Your task to perform on an android device: What's the weather going to be tomorrow? Image 0: 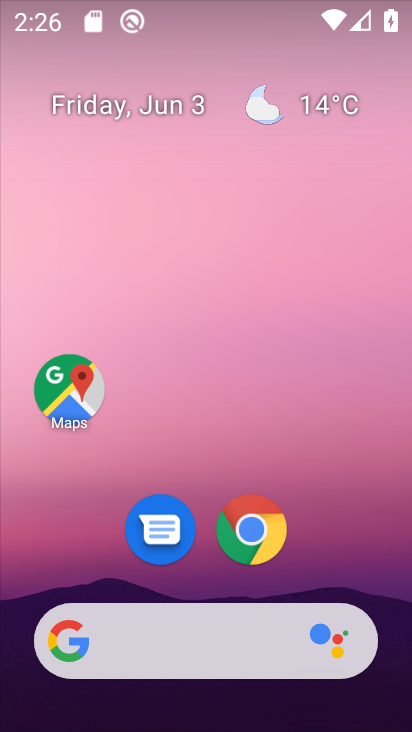
Step 0: click (197, 94)
Your task to perform on an android device: What's the weather going to be tomorrow? Image 1: 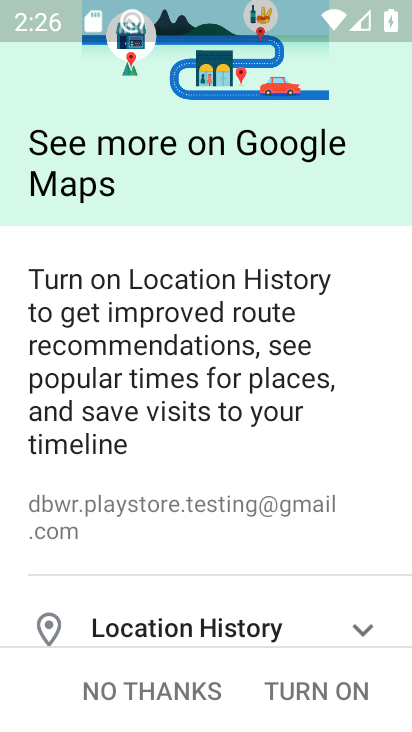
Step 1: press back button
Your task to perform on an android device: What's the weather going to be tomorrow? Image 2: 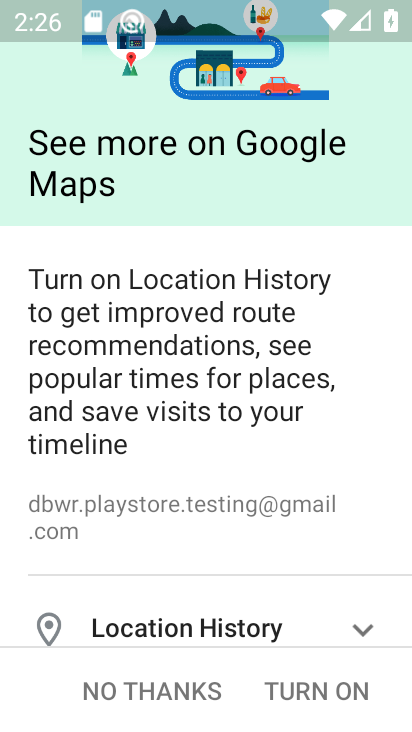
Step 2: press back button
Your task to perform on an android device: What's the weather going to be tomorrow? Image 3: 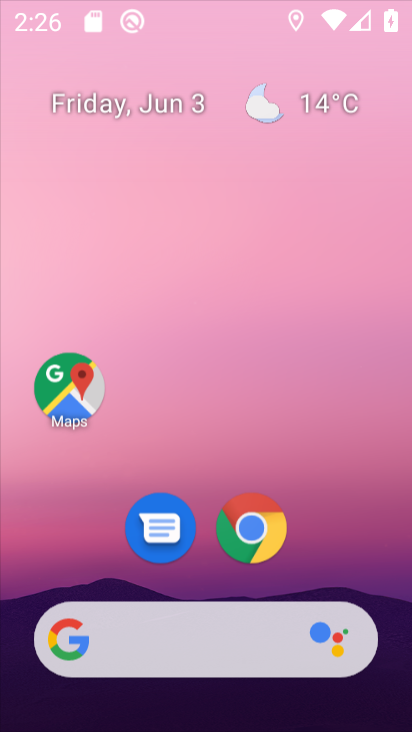
Step 3: press home button
Your task to perform on an android device: What's the weather going to be tomorrow? Image 4: 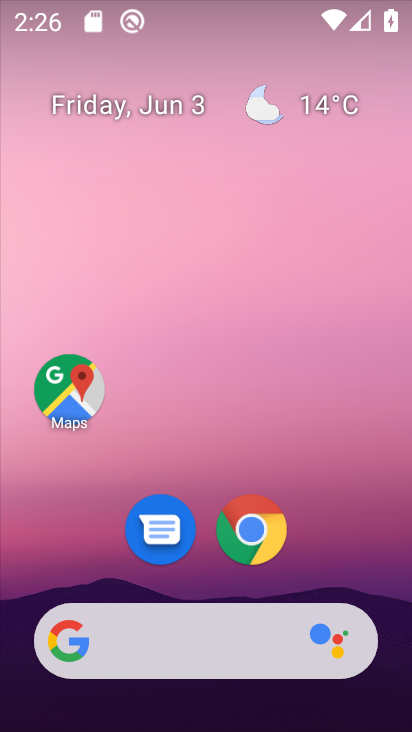
Step 4: drag from (4, 297) to (397, 649)
Your task to perform on an android device: What's the weather going to be tomorrow? Image 5: 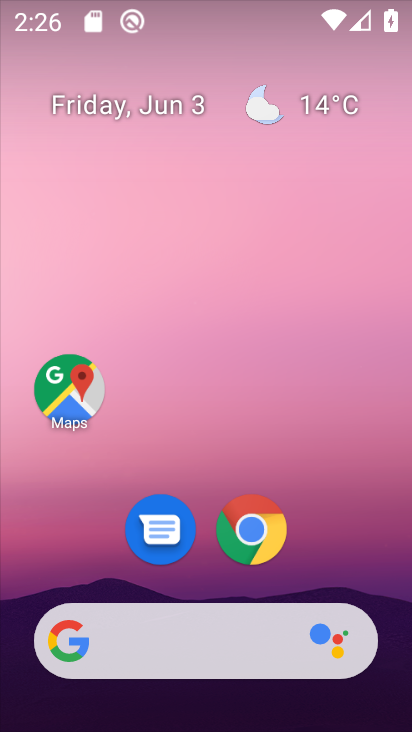
Step 5: drag from (157, 322) to (384, 555)
Your task to perform on an android device: What's the weather going to be tomorrow? Image 6: 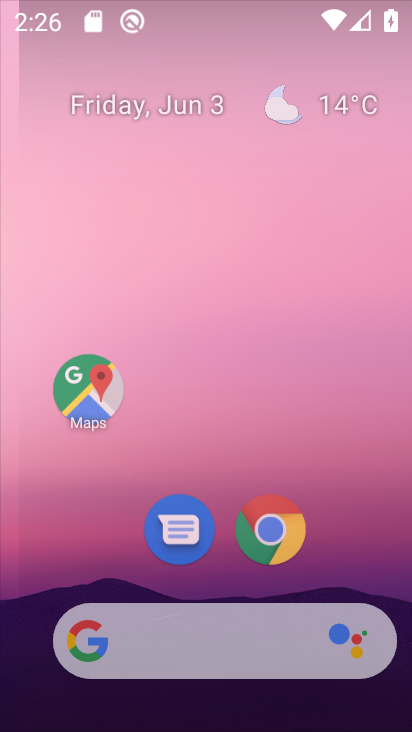
Step 6: drag from (43, 355) to (369, 503)
Your task to perform on an android device: What's the weather going to be tomorrow? Image 7: 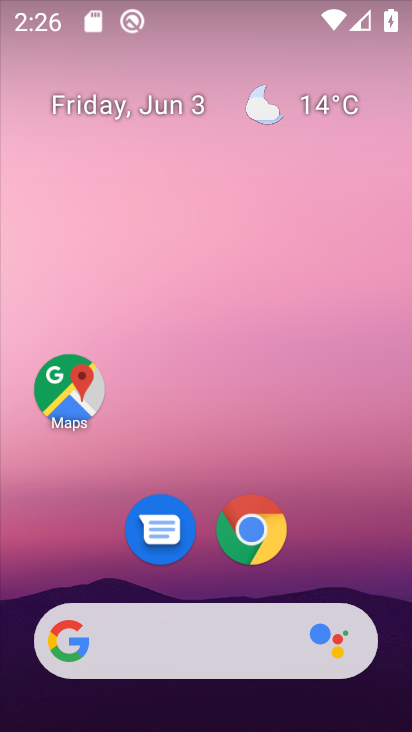
Step 7: drag from (207, 366) to (288, 377)
Your task to perform on an android device: What's the weather going to be tomorrow? Image 8: 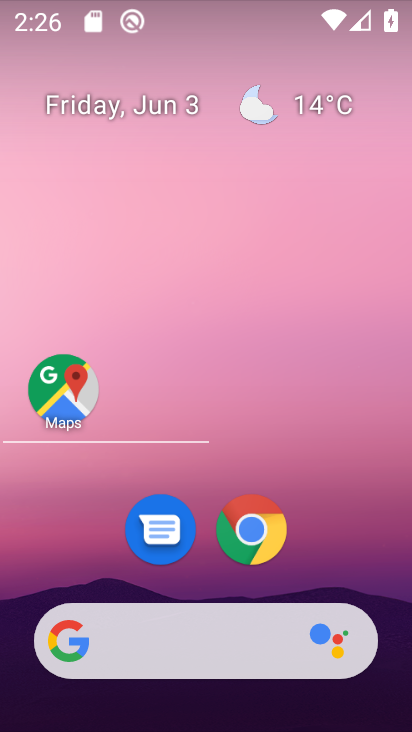
Step 8: drag from (39, 273) to (361, 512)
Your task to perform on an android device: What's the weather going to be tomorrow? Image 9: 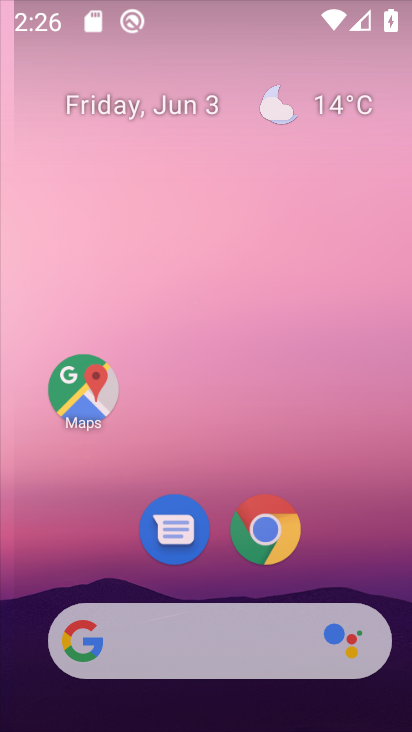
Step 9: drag from (97, 313) to (390, 426)
Your task to perform on an android device: What's the weather going to be tomorrow? Image 10: 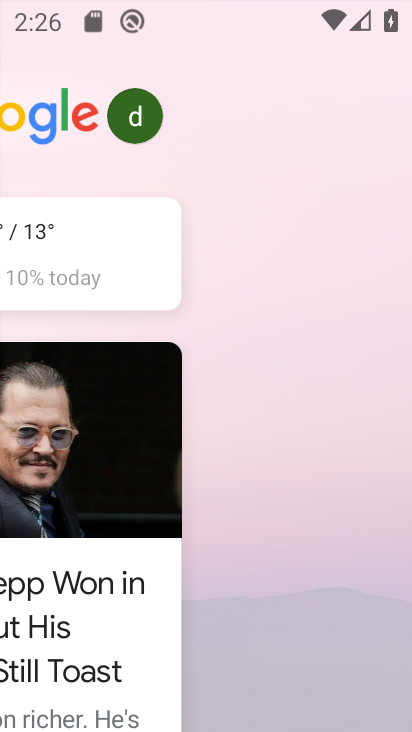
Step 10: drag from (113, 253) to (393, 485)
Your task to perform on an android device: What's the weather going to be tomorrow? Image 11: 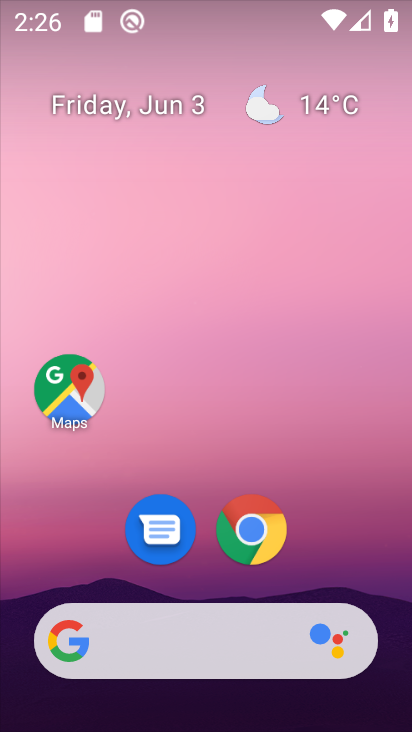
Step 11: drag from (31, 312) to (354, 482)
Your task to perform on an android device: What's the weather going to be tomorrow? Image 12: 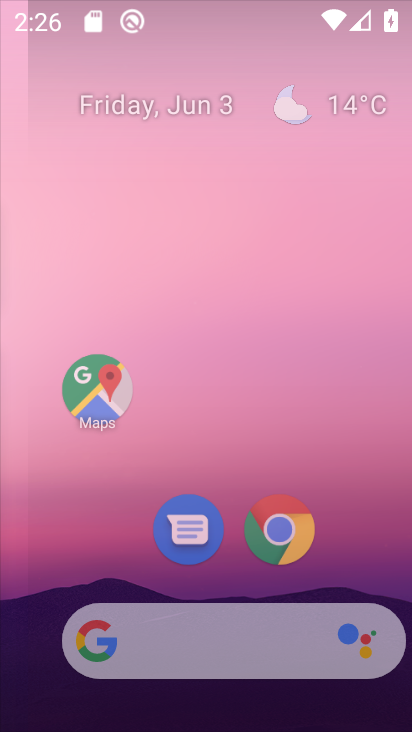
Step 12: drag from (220, 412) to (404, 485)
Your task to perform on an android device: What's the weather going to be tomorrow? Image 13: 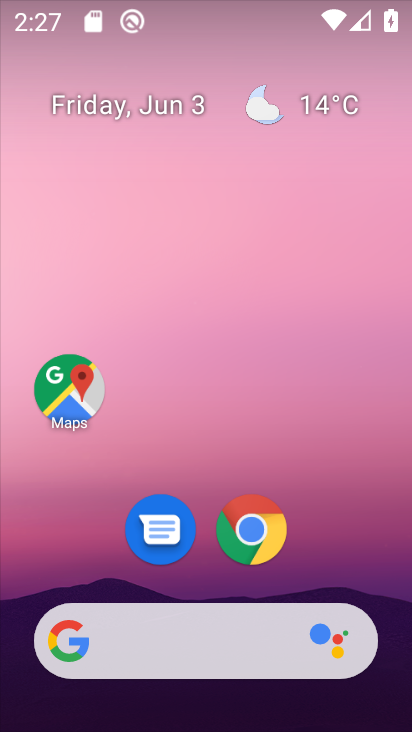
Step 13: drag from (56, 312) to (395, 339)
Your task to perform on an android device: What's the weather going to be tomorrow? Image 14: 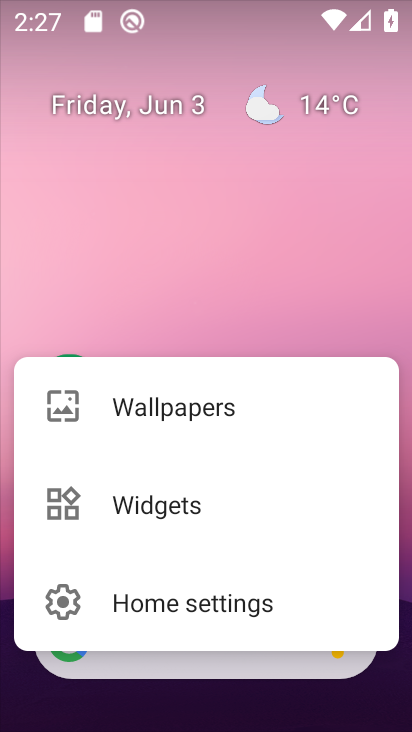
Step 14: drag from (16, 205) to (393, 453)
Your task to perform on an android device: What's the weather going to be tomorrow? Image 15: 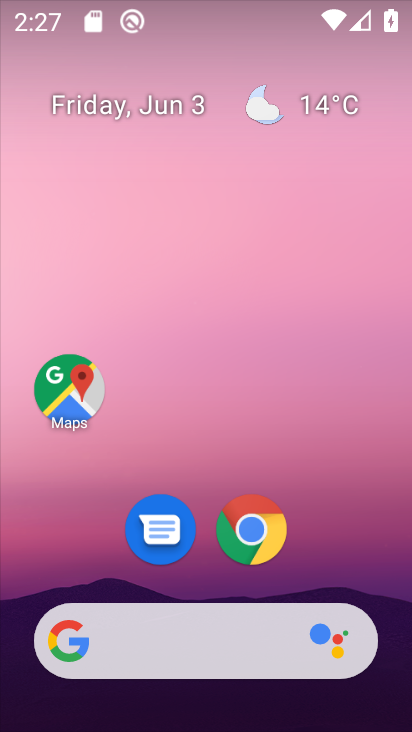
Step 15: drag from (92, 342) to (366, 676)
Your task to perform on an android device: What's the weather going to be tomorrow? Image 16: 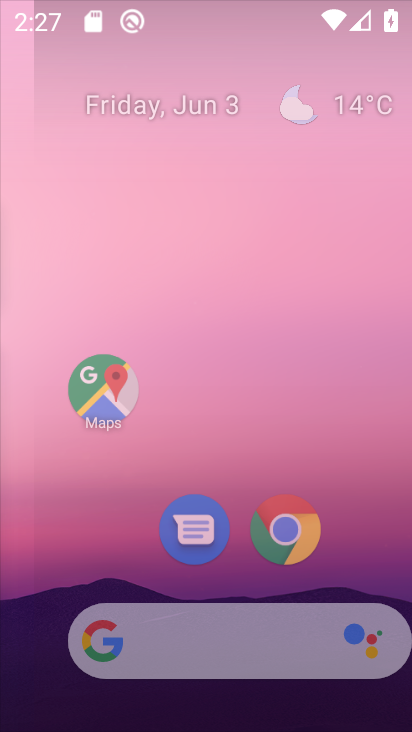
Step 16: drag from (39, 262) to (406, 486)
Your task to perform on an android device: What's the weather going to be tomorrow? Image 17: 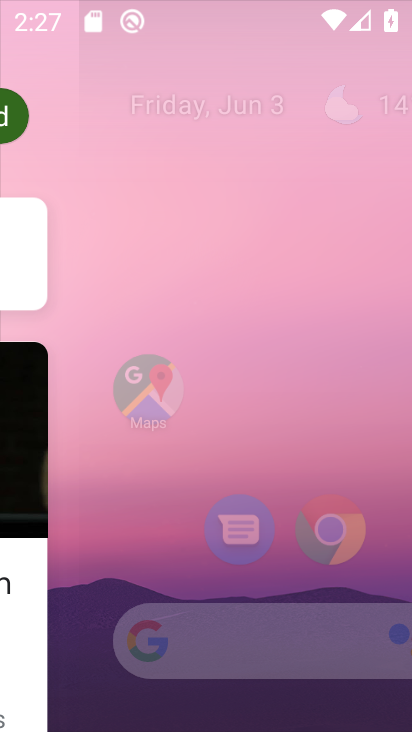
Step 17: drag from (27, 262) to (315, 452)
Your task to perform on an android device: What's the weather going to be tomorrow? Image 18: 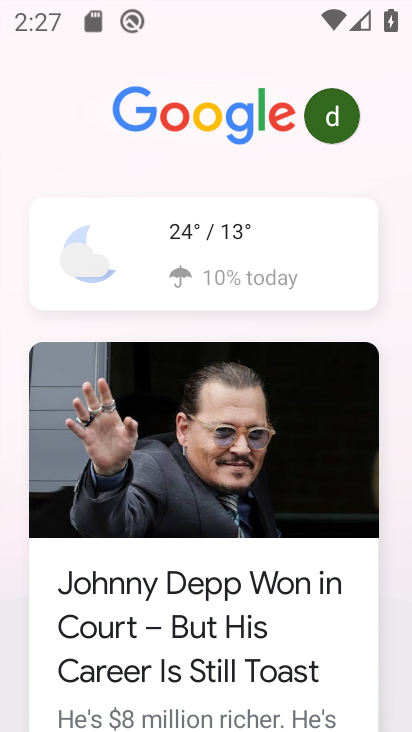
Step 18: drag from (16, 343) to (387, 537)
Your task to perform on an android device: What's the weather going to be tomorrow? Image 19: 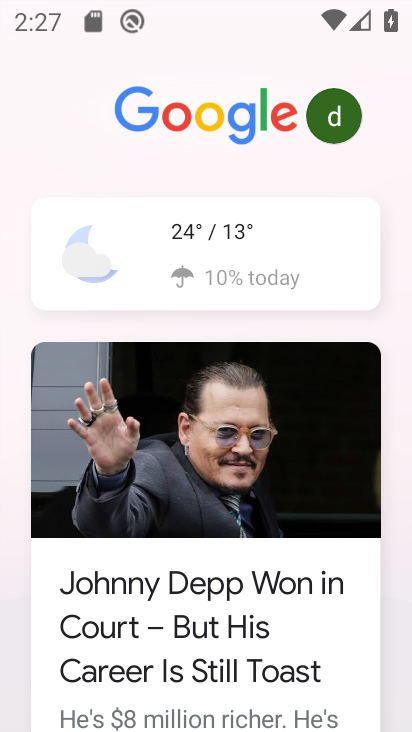
Step 19: click (155, 244)
Your task to perform on an android device: What's the weather going to be tomorrow? Image 20: 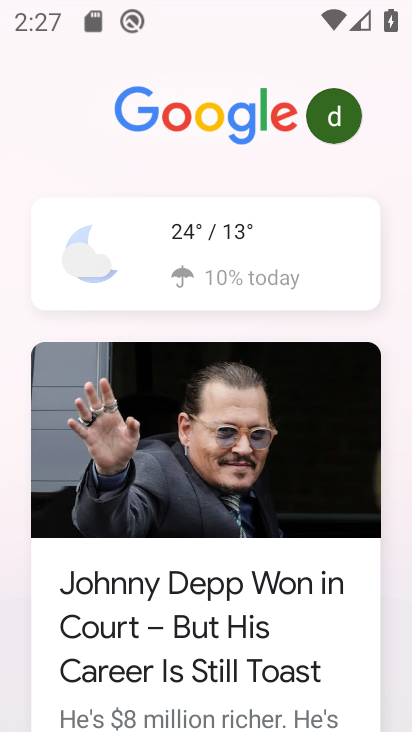
Step 20: click (166, 254)
Your task to perform on an android device: What's the weather going to be tomorrow? Image 21: 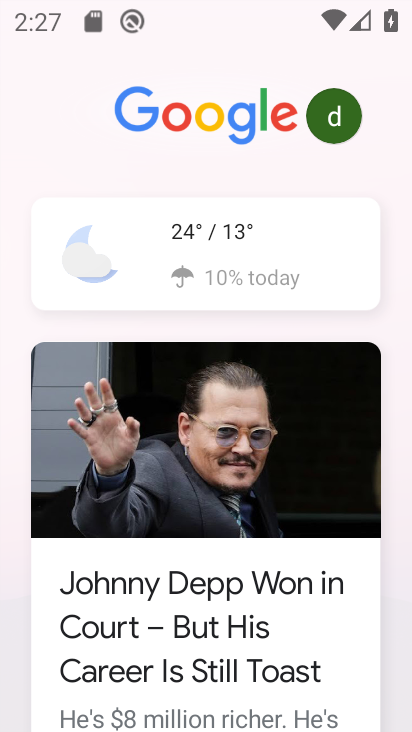
Step 21: click (165, 254)
Your task to perform on an android device: What's the weather going to be tomorrow? Image 22: 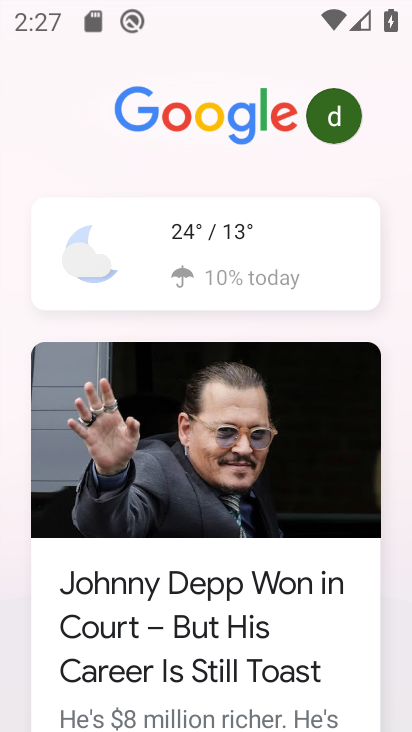
Step 22: click (187, 229)
Your task to perform on an android device: What's the weather going to be tomorrow? Image 23: 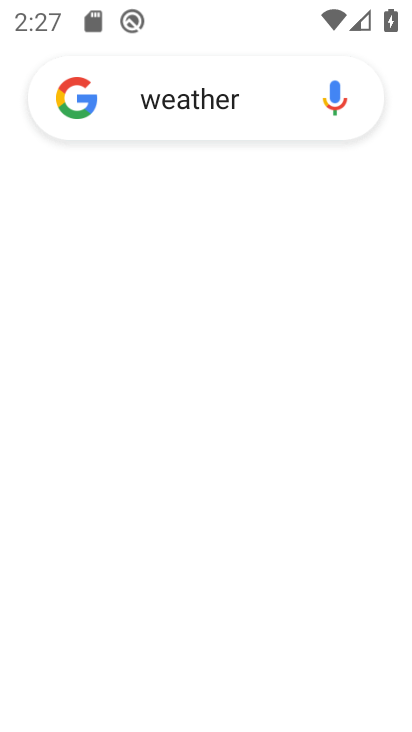
Step 23: click (187, 237)
Your task to perform on an android device: What's the weather going to be tomorrow? Image 24: 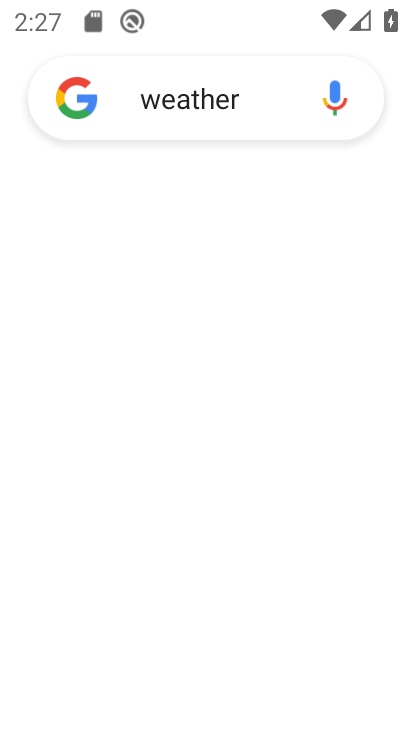
Step 24: click (197, 268)
Your task to perform on an android device: What's the weather going to be tomorrow? Image 25: 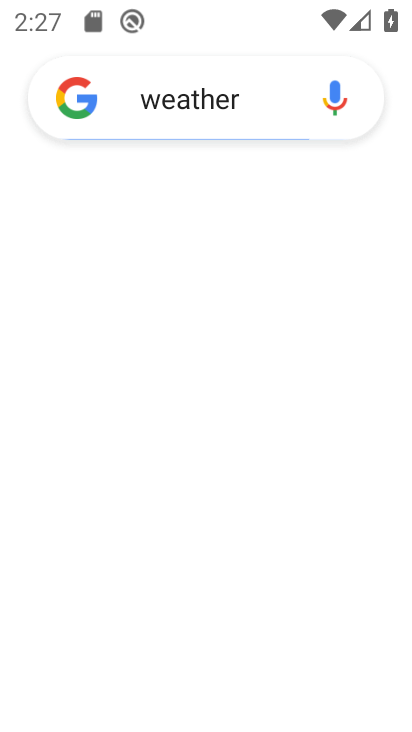
Step 25: click (197, 268)
Your task to perform on an android device: What's the weather going to be tomorrow? Image 26: 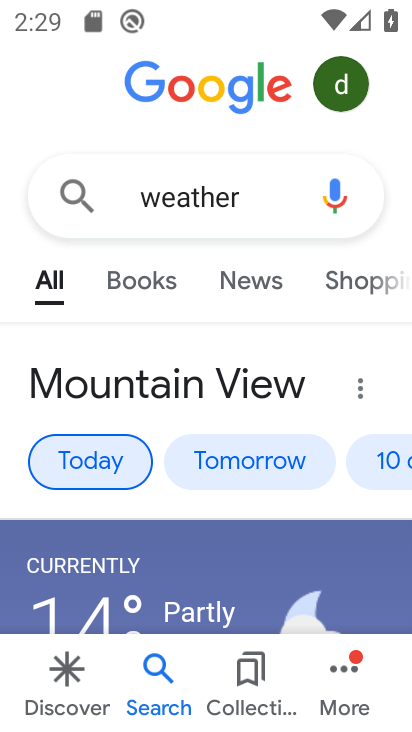
Step 26: click (257, 458)
Your task to perform on an android device: What's the weather going to be tomorrow? Image 27: 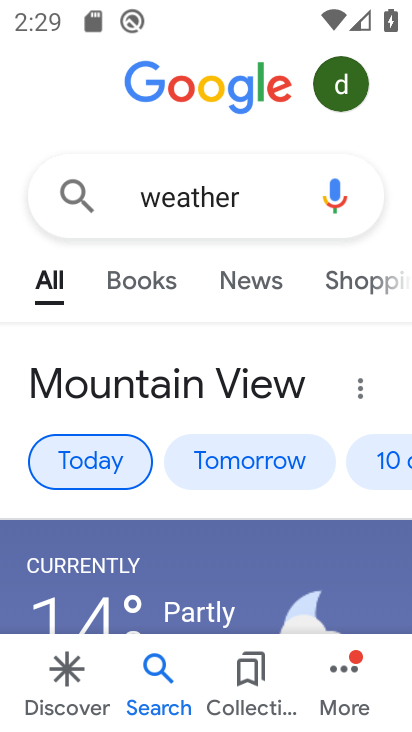
Step 27: click (257, 458)
Your task to perform on an android device: What's the weather going to be tomorrow? Image 28: 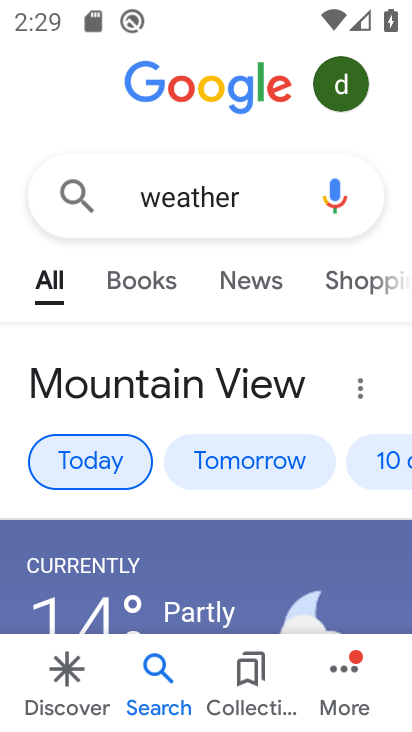
Step 28: click (258, 463)
Your task to perform on an android device: What's the weather going to be tomorrow? Image 29: 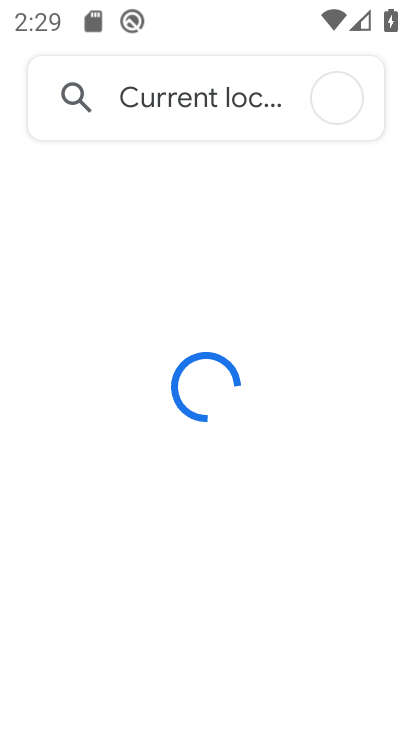
Step 29: click (253, 473)
Your task to perform on an android device: What's the weather going to be tomorrow? Image 30: 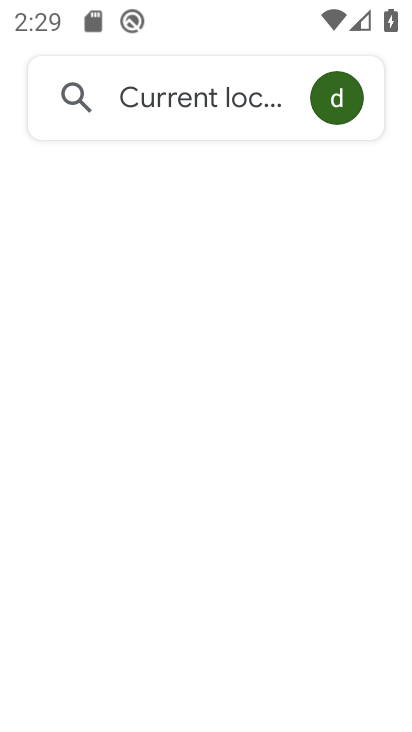
Step 30: click (253, 473)
Your task to perform on an android device: What's the weather going to be tomorrow? Image 31: 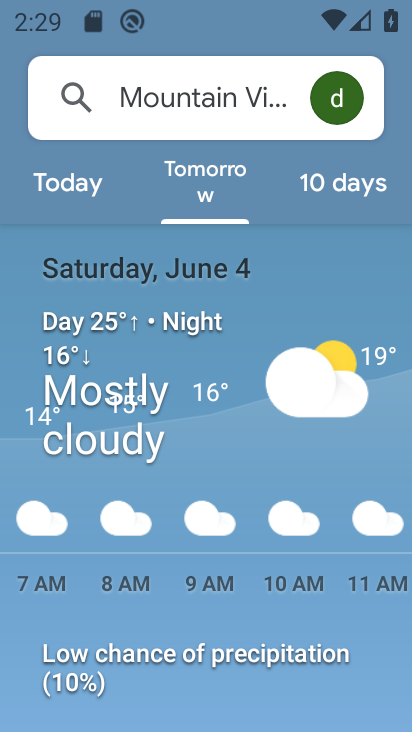
Step 31: task complete